Your task to perform on an android device: open device folders in google photos Image 0: 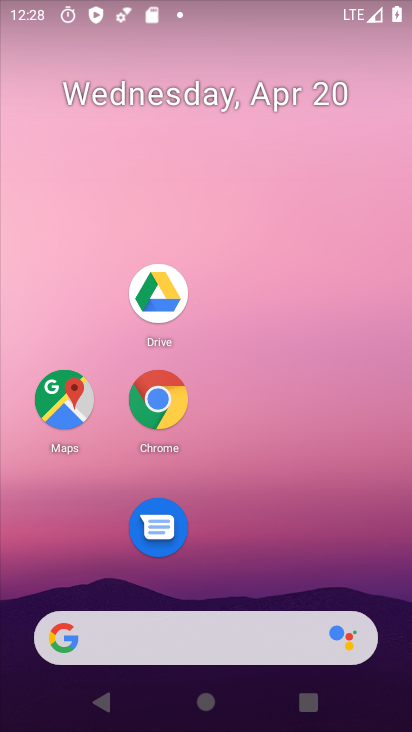
Step 0: drag from (277, 654) to (266, 112)
Your task to perform on an android device: open device folders in google photos Image 1: 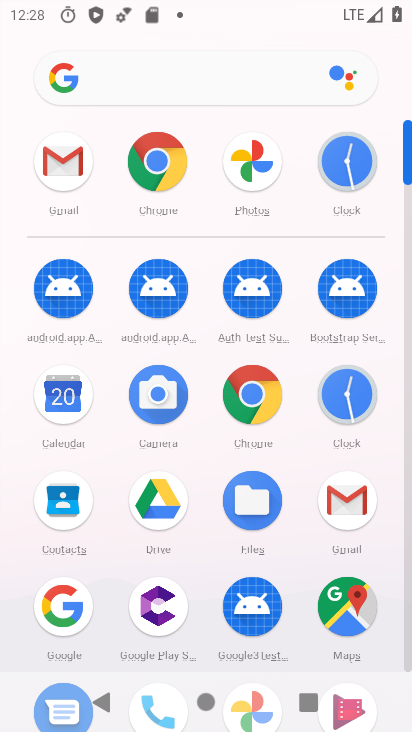
Step 1: drag from (117, 452) to (102, 299)
Your task to perform on an android device: open device folders in google photos Image 2: 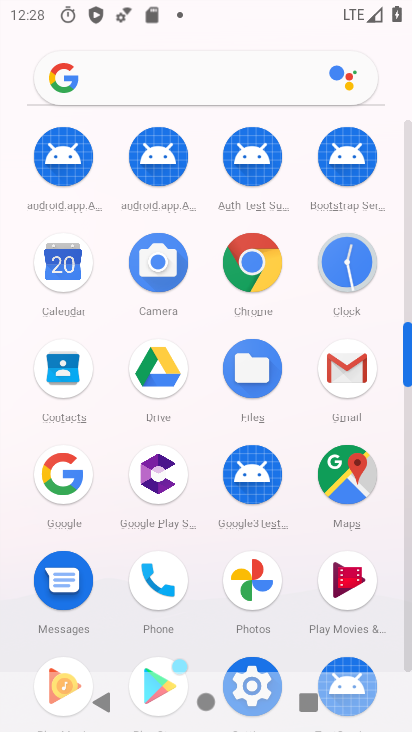
Step 2: click (269, 570)
Your task to perform on an android device: open device folders in google photos Image 3: 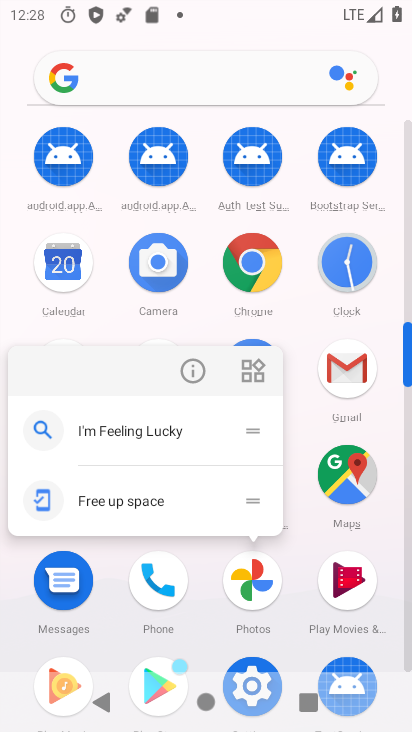
Step 3: click (233, 586)
Your task to perform on an android device: open device folders in google photos Image 4: 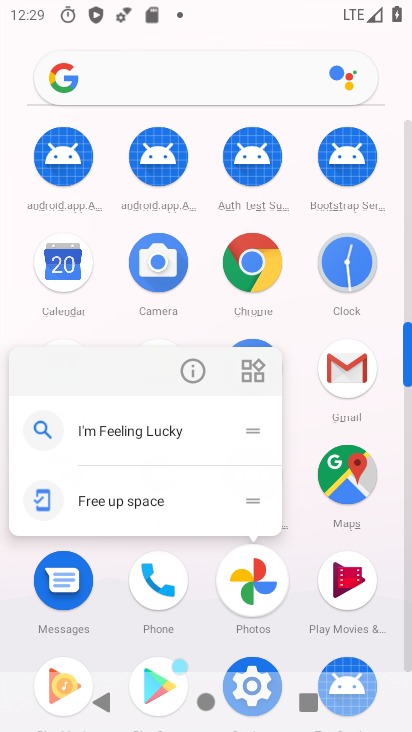
Step 4: click (246, 581)
Your task to perform on an android device: open device folders in google photos Image 5: 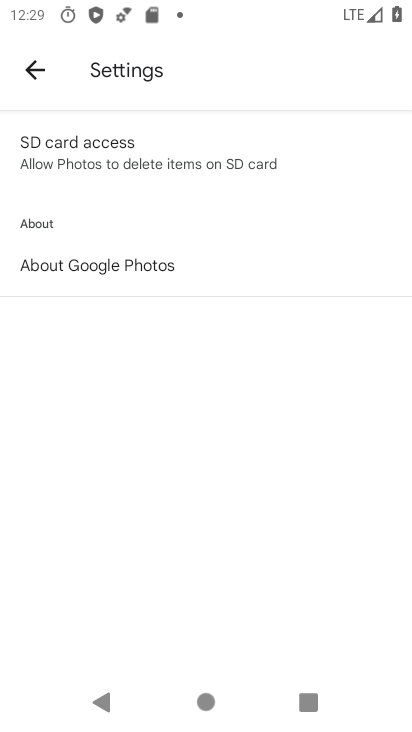
Step 5: click (32, 67)
Your task to perform on an android device: open device folders in google photos Image 6: 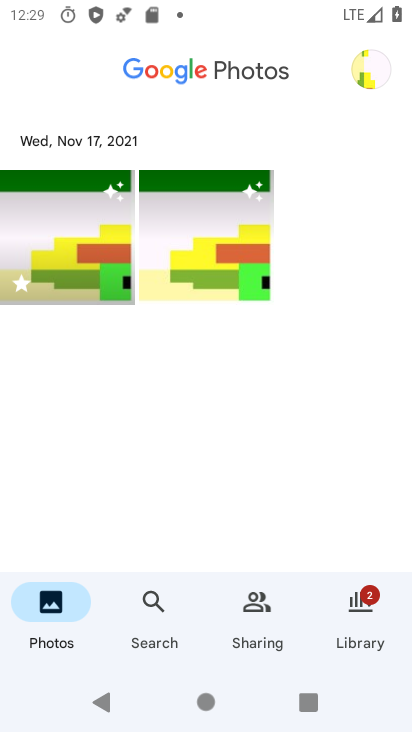
Step 6: click (375, 72)
Your task to perform on an android device: open device folders in google photos Image 7: 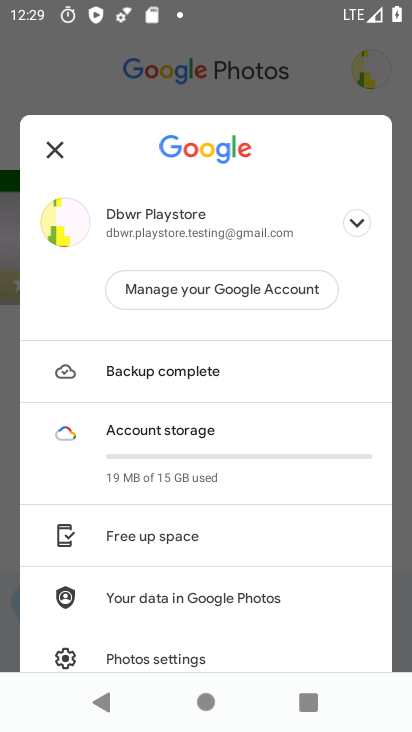
Step 7: click (167, 654)
Your task to perform on an android device: open device folders in google photos Image 8: 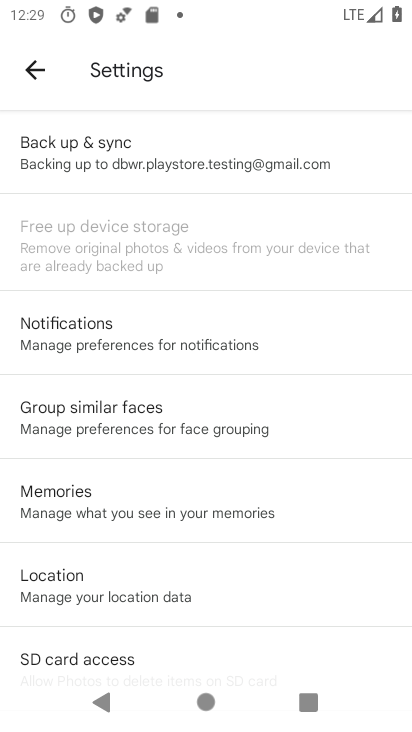
Step 8: drag from (148, 498) to (188, 312)
Your task to perform on an android device: open device folders in google photos Image 9: 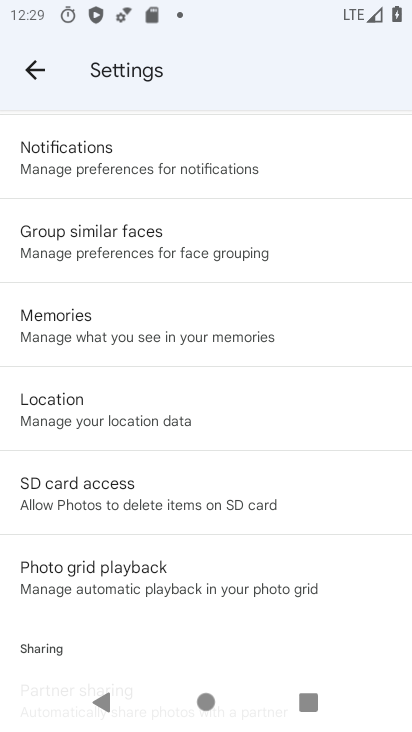
Step 9: drag from (166, 493) to (178, 308)
Your task to perform on an android device: open device folders in google photos Image 10: 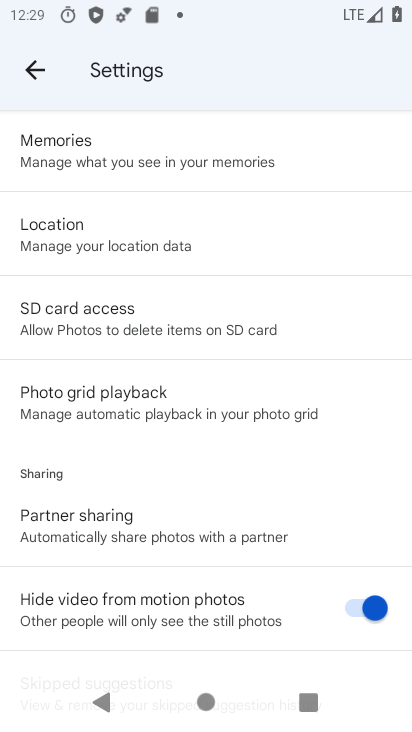
Step 10: drag from (169, 414) to (185, 254)
Your task to perform on an android device: open device folders in google photos Image 11: 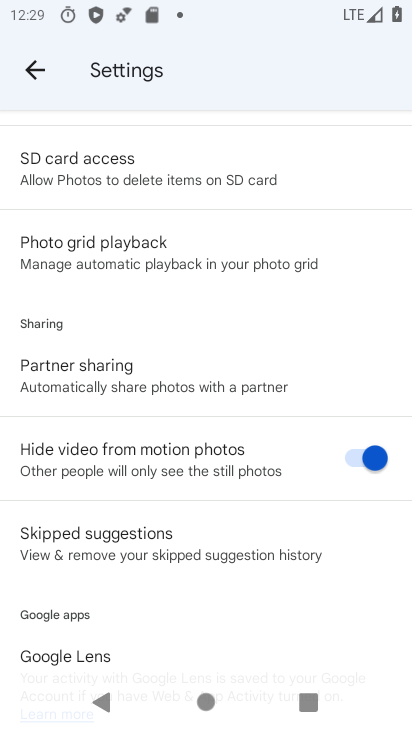
Step 11: drag from (182, 408) to (206, 214)
Your task to perform on an android device: open device folders in google photos Image 12: 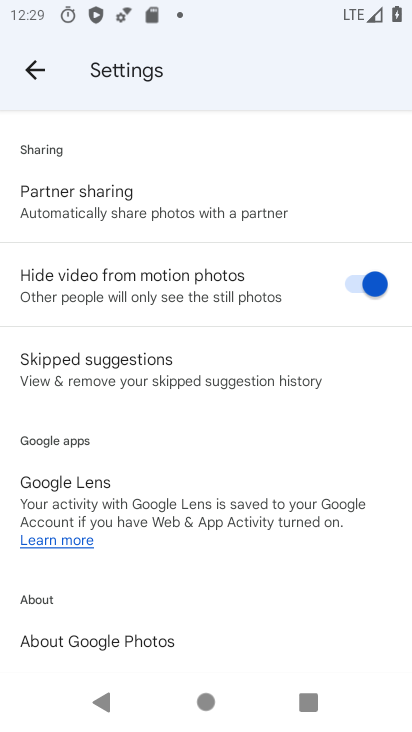
Step 12: drag from (145, 205) to (139, 589)
Your task to perform on an android device: open device folders in google photos Image 13: 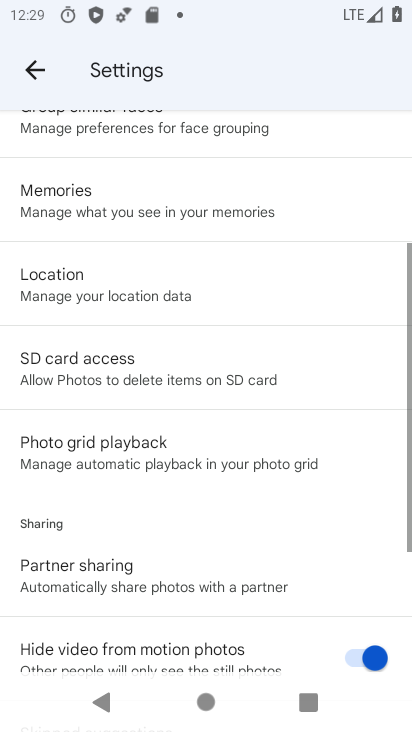
Step 13: drag from (129, 244) to (122, 522)
Your task to perform on an android device: open device folders in google photos Image 14: 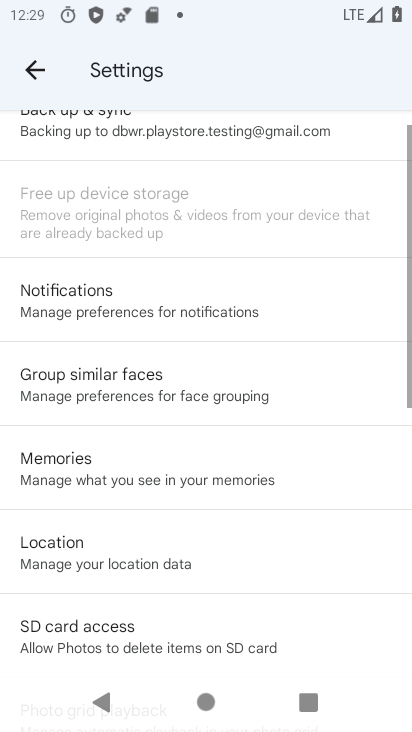
Step 14: drag from (110, 168) to (146, 460)
Your task to perform on an android device: open device folders in google photos Image 15: 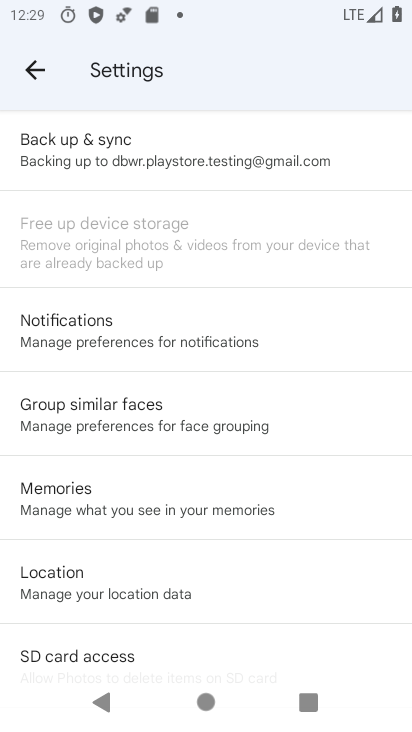
Step 15: click (35, 68)
Your task to perform on an android device: open device folders in google photos Image 16: 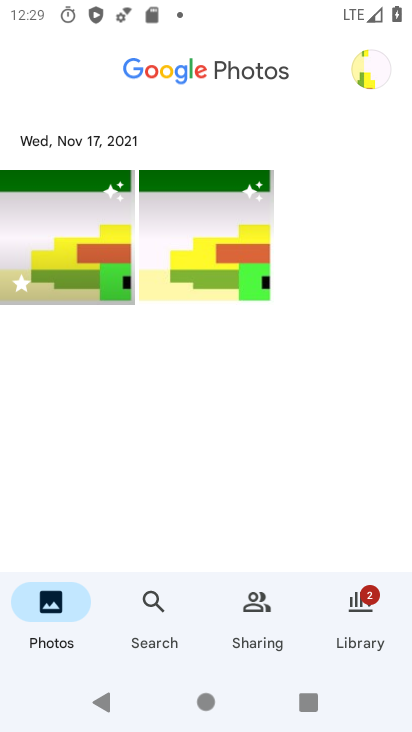
Step 16: click (165, 594)
Your task to perform on an android device: open device folders in google photos Image 17: 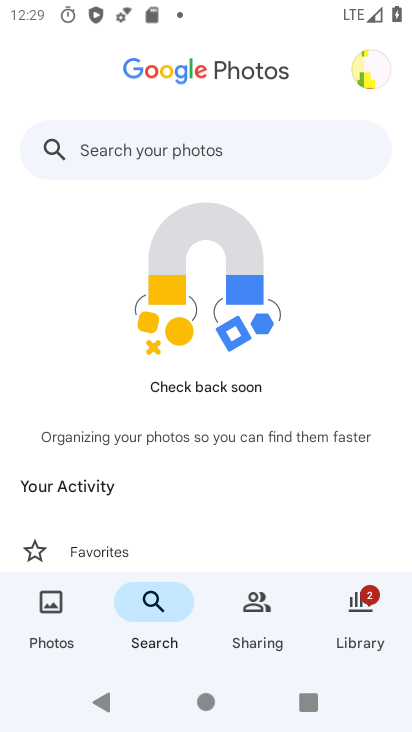
Step 17: click (117, 143)
Your task to perform on an android device: open device folders in google photos Image 18: 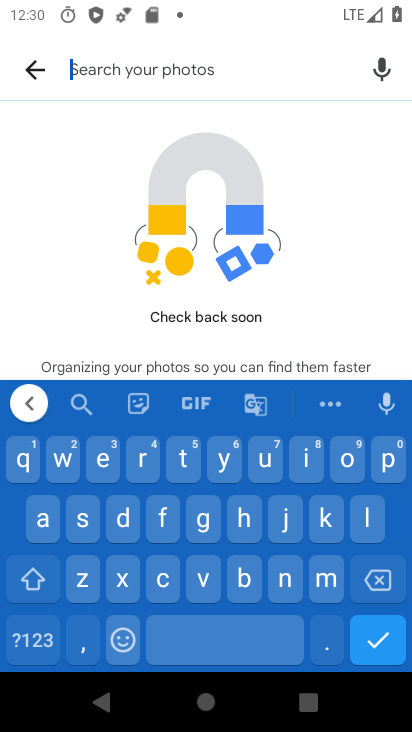
Step 18: click (125, 512)
Your task to perform on an android device: open device folders in google photos Image 19: 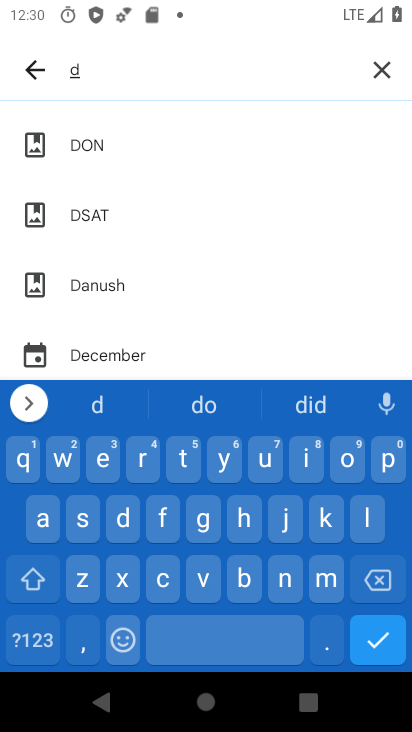
Step 19: click (111, 461)
Your task to perform on an android device: open device folders in google photos Image 20: 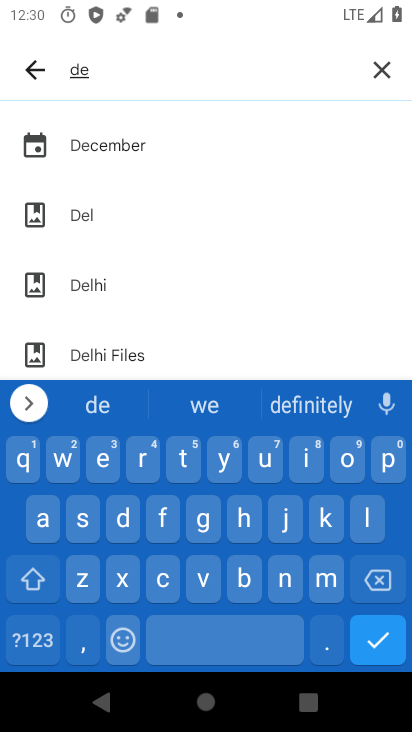
Step 20: click (203, 586)
Your task to perform on an android device: open device folders in google photos Image 21: 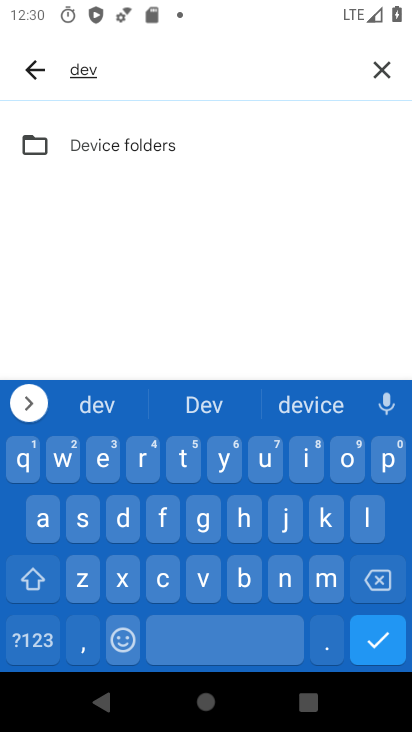
Step 21: click (126, 157)
Your task to perform on an android device: open device folders in google photos Image 22: 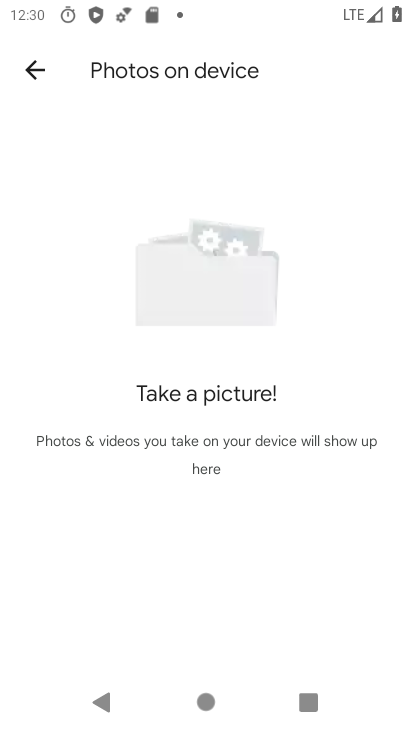
Step 22: task complete